Your task to perform on an android device: Go to eBay Image 0: 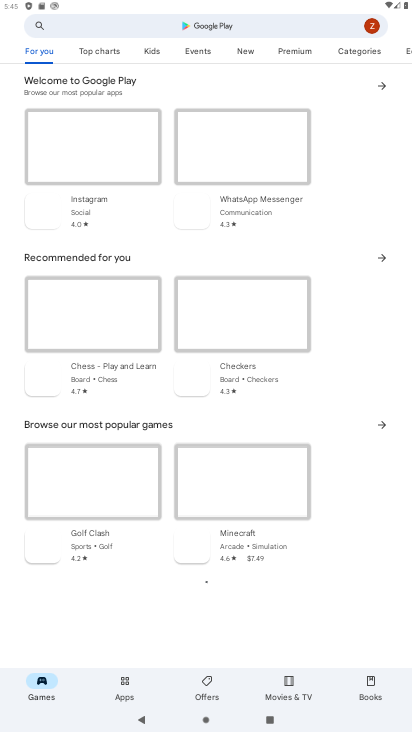
Step 0: press home button
Your task to perform on an android device: Go to eBay Image 1: 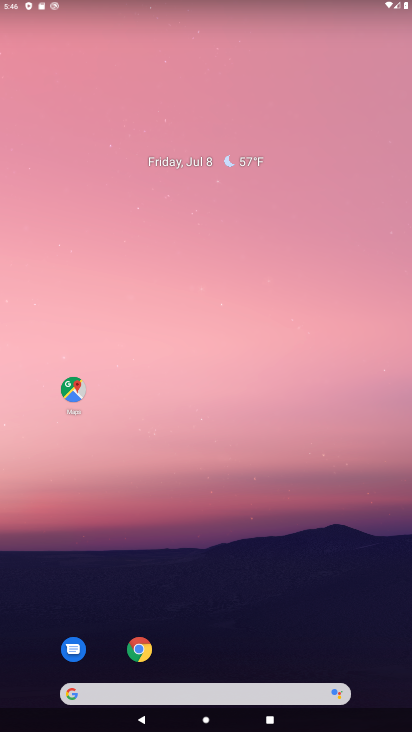
Step 1: drag from (208, 354) to (208, 10)
Your task to perform on an android device: Go to eBay Image 2: 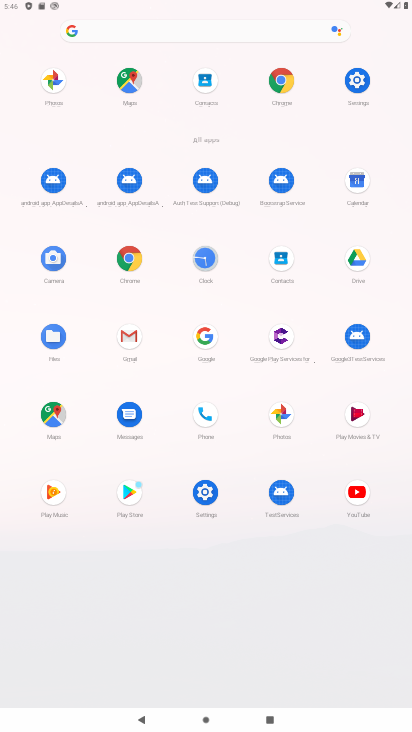
Step 2: click (132, 259)
Your task to perform on an android device: Go to eBay Image 3: 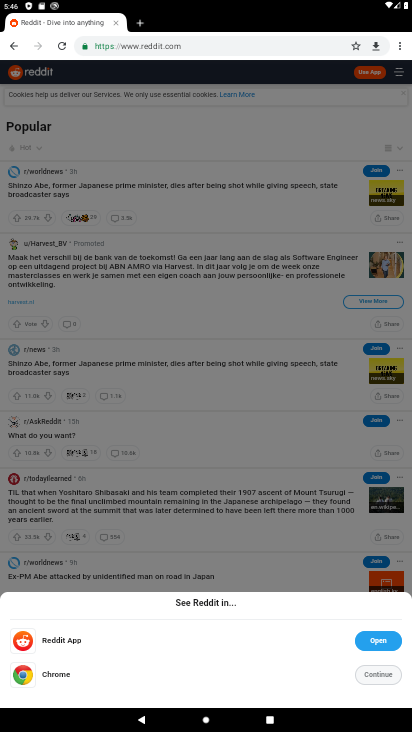
Step 3: click (157, 48)
Your task to perform on an android device: Go to eBay Image 4: 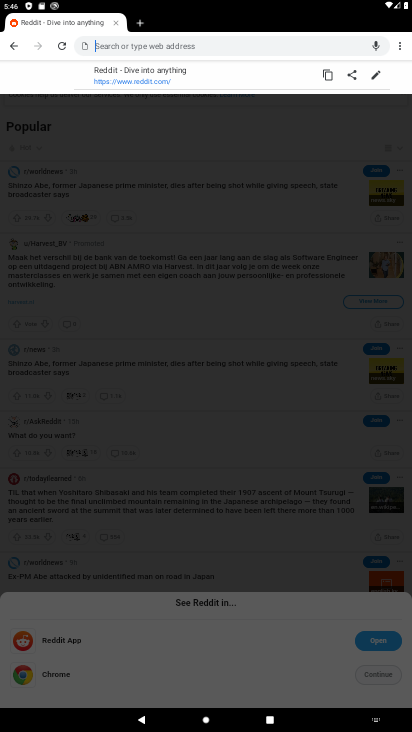
Step 4: type "ebay"
Your task to perform on an android device: Go to eBay Image 5: 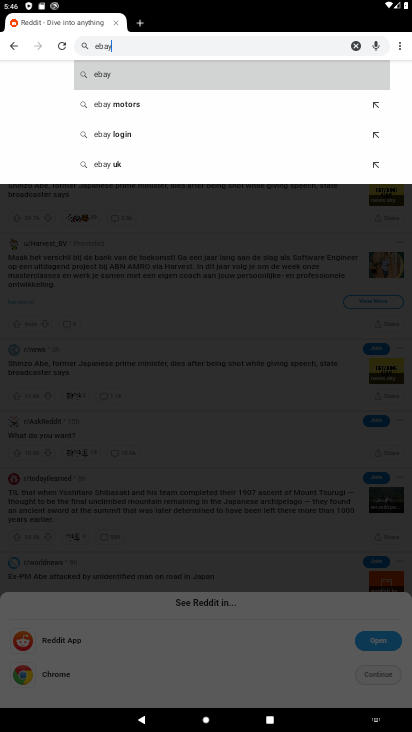
Step 5: click (124, 75)
Your task to perform on an android device: Go to eBay Image 6: 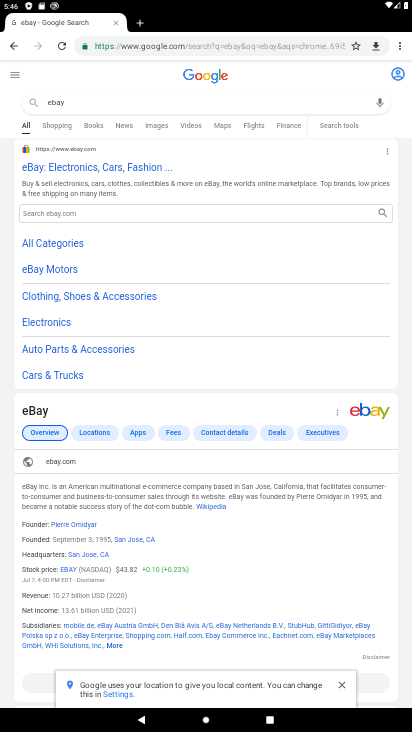
Step 6: task complete